Your task to perform on an android device: Open privacy settings Image 0: 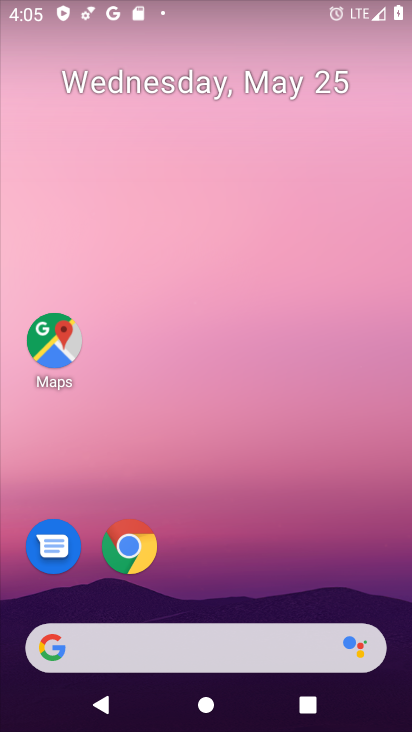
Step 0: drag from (274, 599) to (287, 0)
Your task to perform on an android device: Open privacy settings Image 1: 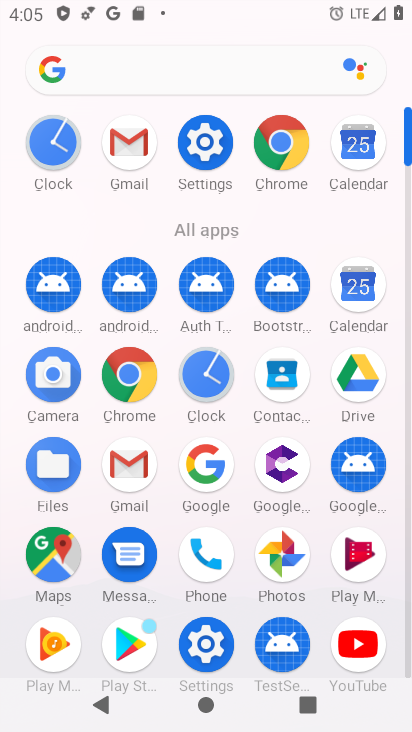
Step 1: click (209, 147)
Your task to perform on an android device: Open privacy settings Image 2: 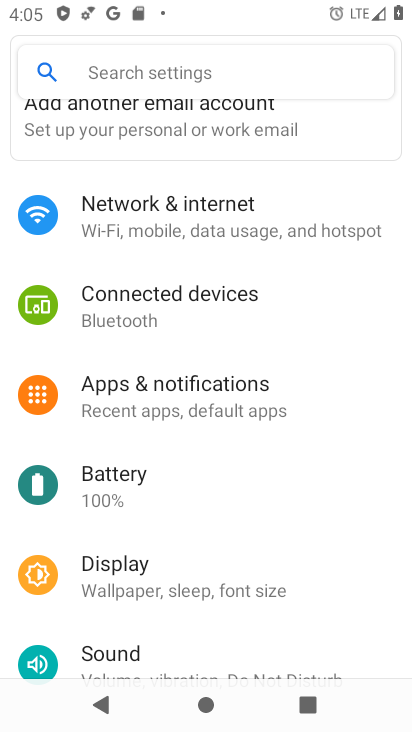
Step 2: drag from (219, 569) to (241, 21)
Your task to perform on an android device: Open privacy settings Image 3: 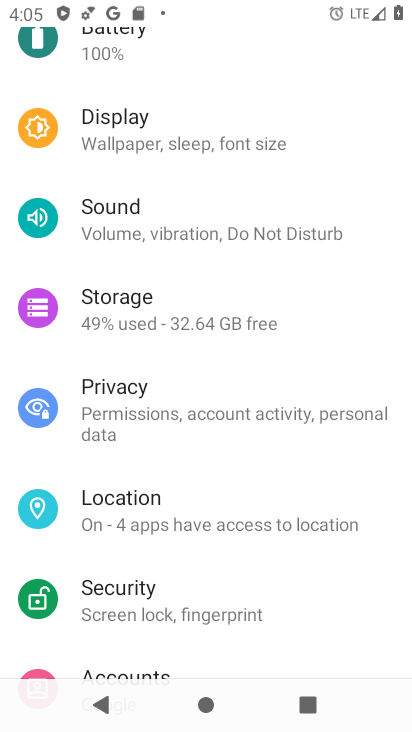
Step 3: drag from (229, 539) to (244, 99)
Your task to perform on an android device: Open privacy settings Image 4: 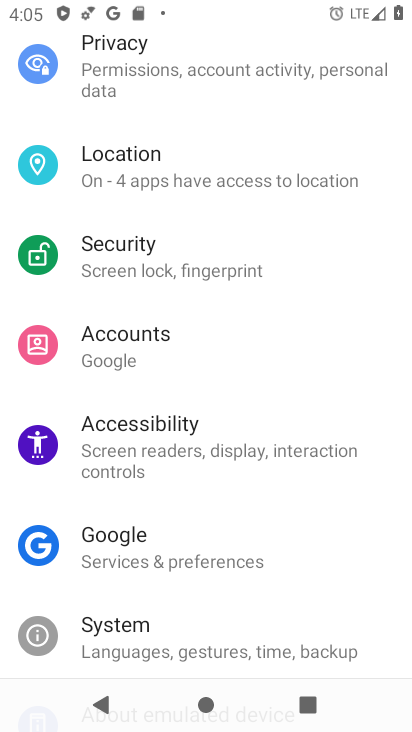
Step 4: drag from (159, 568) to (160, 281)
Your task to perform on an android device: Open privacy settings Image 5: 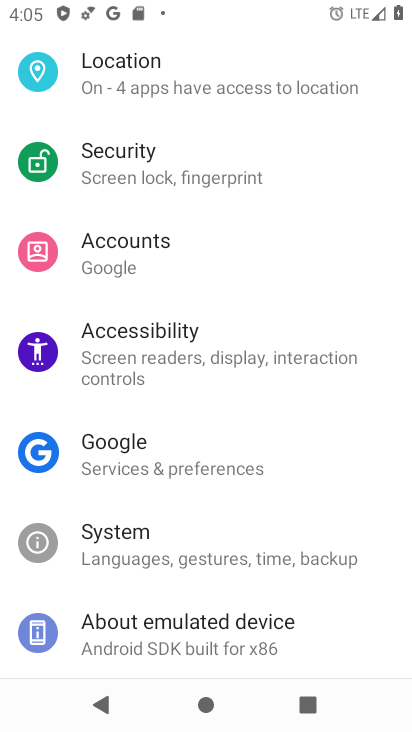
Step 5: drag from (173, 67) to (221, 394)
Your task to perform on an android device: Open privacy settings Image 6: 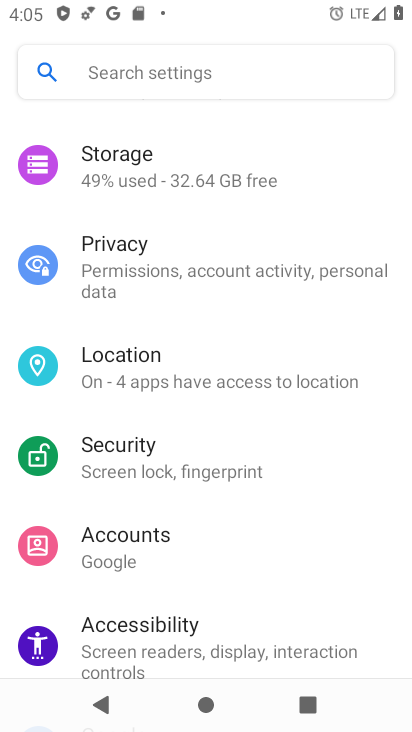
Step 6: click (153, 258)
Your task to perform on an android device: Open privacy settings Image 7: 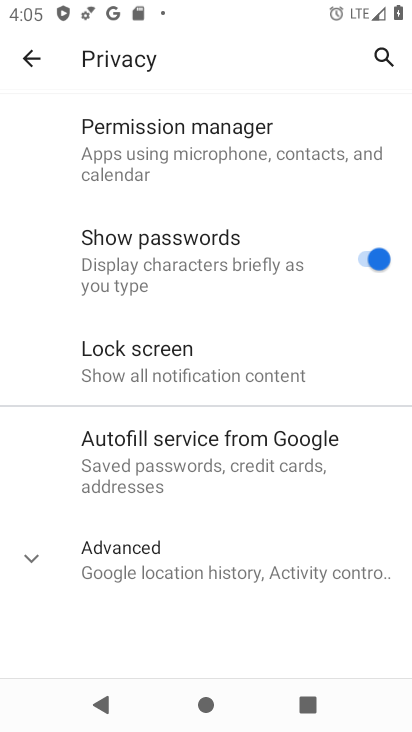
Step 7: task complete